Your task to perform on an android device: find photos in the google photos app Image 0: 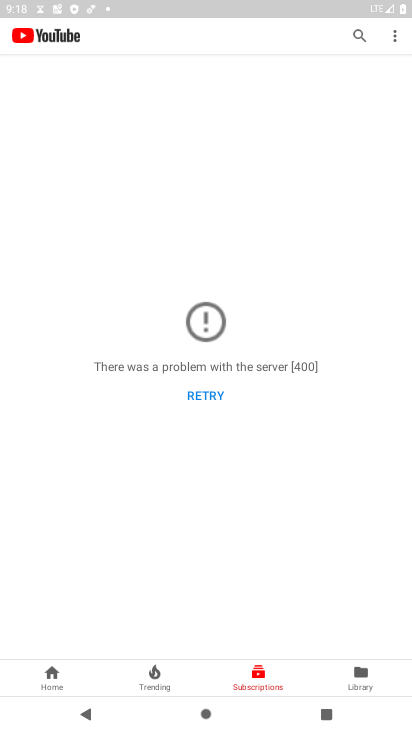
Step 0: press home button
Your task to perform on an android device: find photos in the google photos app Image 1: 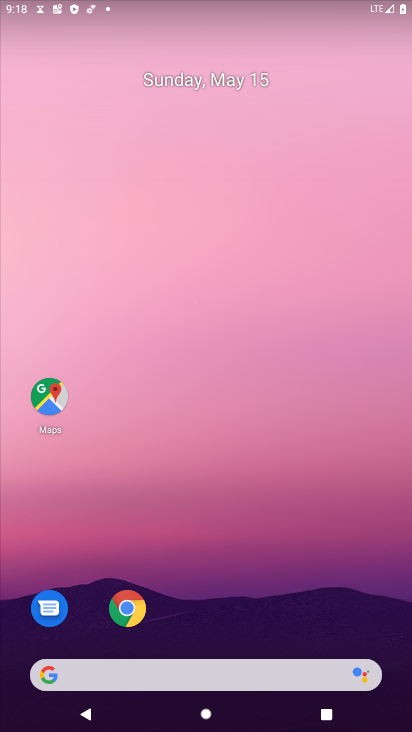
Step 1: drag from (279, 469) to (251, 7)
Your task to perform on an android device: find photos in the google photos app Image 2: 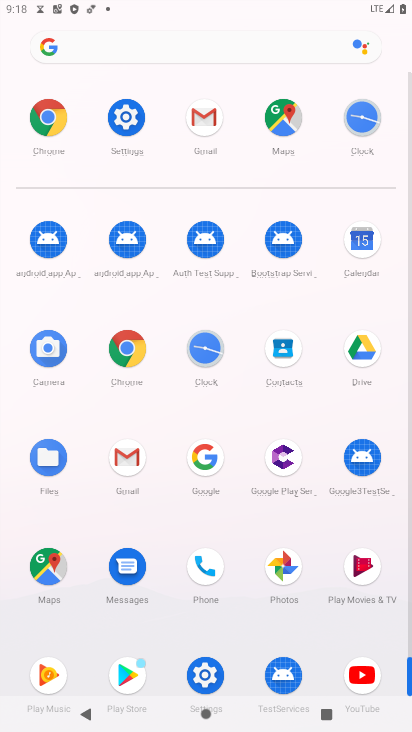
Step 2: click (294, 565)
Your task to perform on an android device: find photos in the google photos app Image 3: 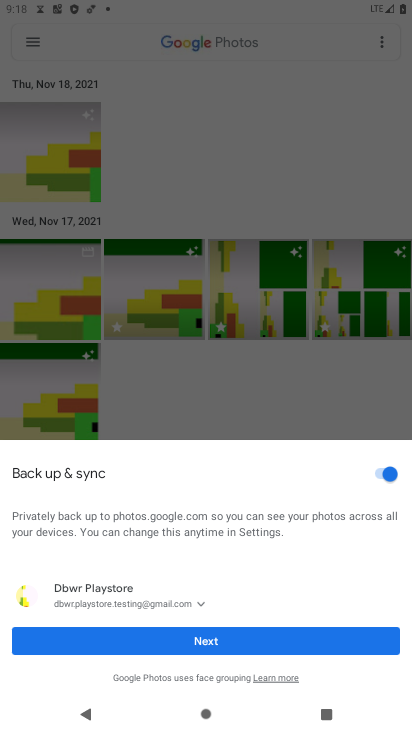
Step 3: click (212, 641)
Your task to perform on an android device: find photos in the google photos app Image 4: 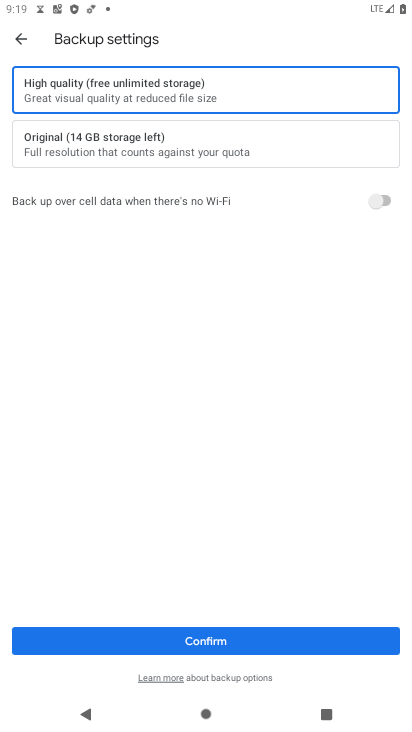
Step 4: click (235, 651)
Your task to perform on an android device: find photos in the google photos app Image 5: 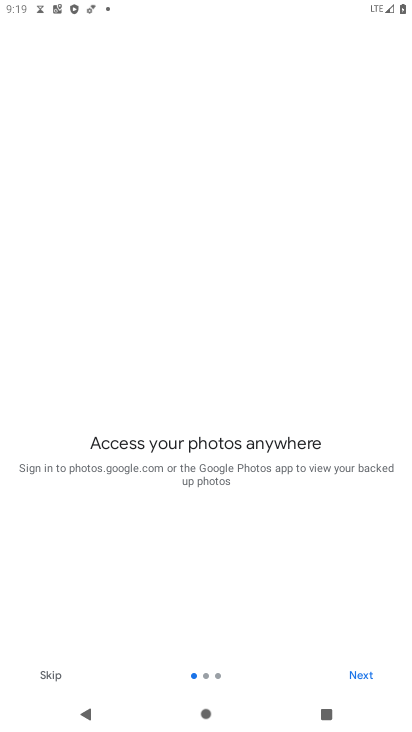
Step 5: click (368, 686)
Your task to perform on an android device: find photos in the google photos app Image 6: 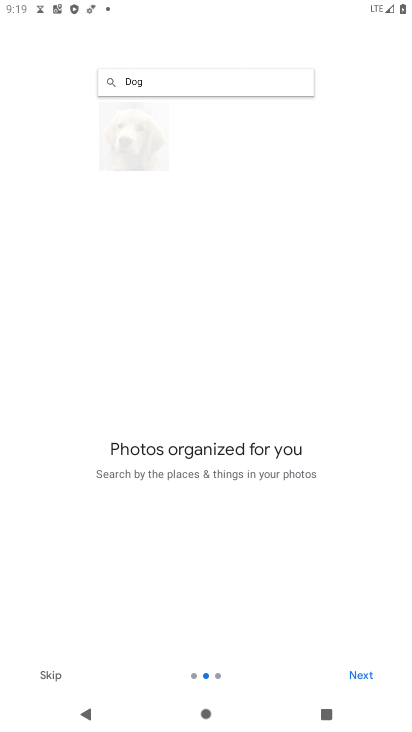
Step 6: click (367, 680)
Your task to perform on an android device: find photos in the google photos app Image 7: 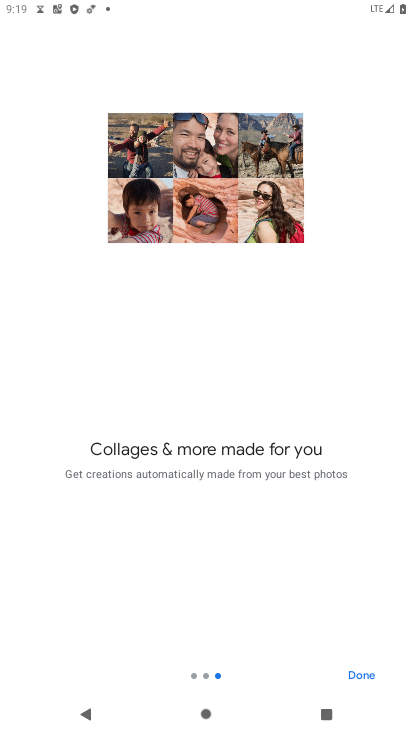
Step 7: click (367, 680)
Your task to perform on an android device: find photos in the google photos app Image 8: 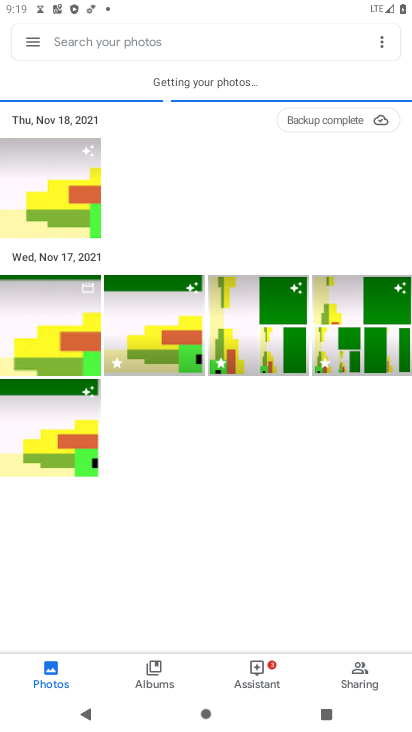
Step 8: click (37, 195)
Your task to perform on an android device: find photos in the google photos app Image 9: 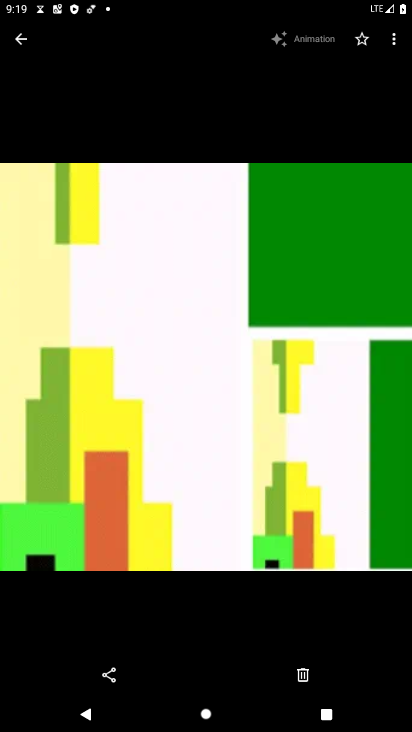
Step 9: task complete